Your task to perform on an android device: Go to Yahoo.com Image 0: 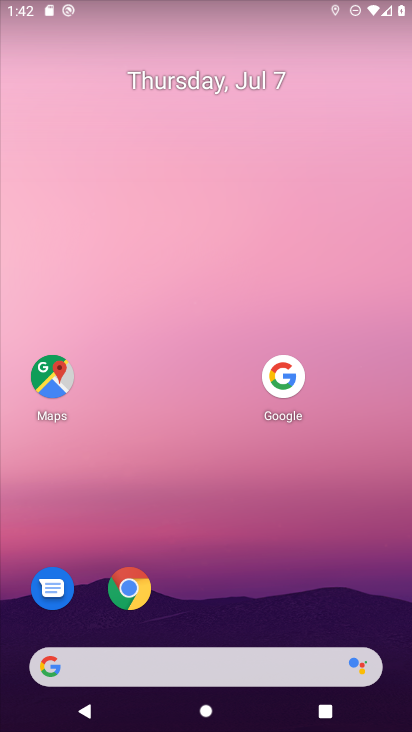
Step 0: click (137, 580)
Your task to perform on an android device: Go to Yahoo.com Image 1: 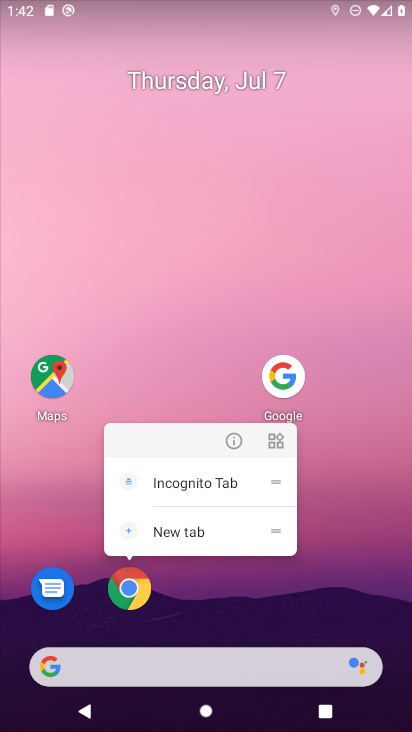
Step 1: click (125, 592)
Your task to perform on an android device: Go to Yahoo.com Image 2: 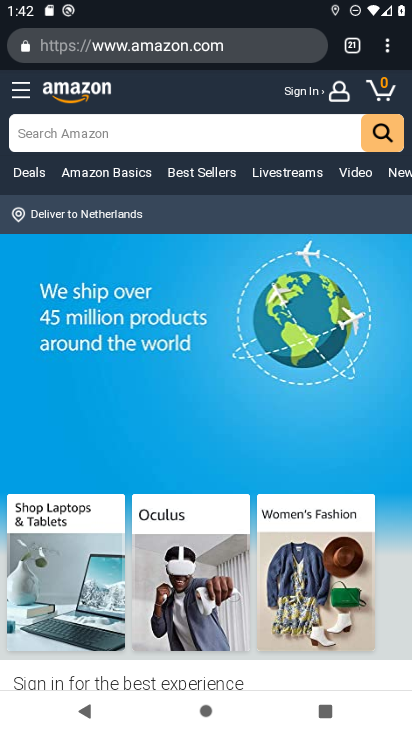
Step 2: drag from (391, 56) to (268, 89)
Your task to perform on an android device: Go to Yahoo.com Image 3: 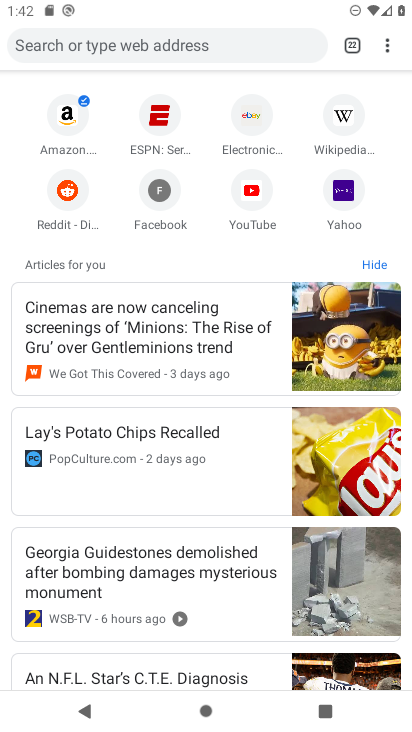
Step 3: click (343, 189)
Your task to perform on an android device: Go to Yahoo.com Image 4: 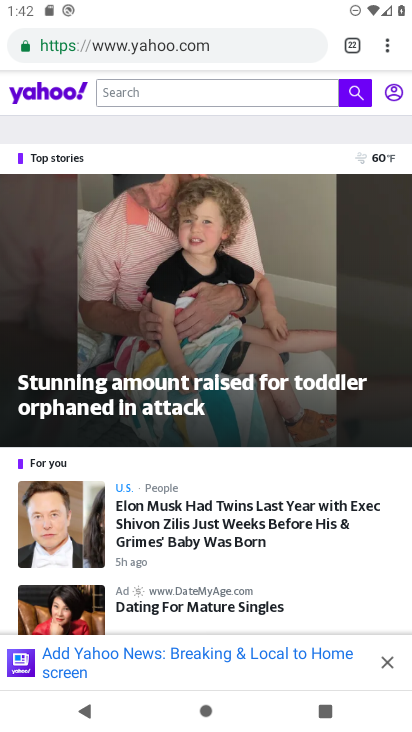
Step 4: task complete